Your task to perform on an android device: turn off sleep mode Image 0: 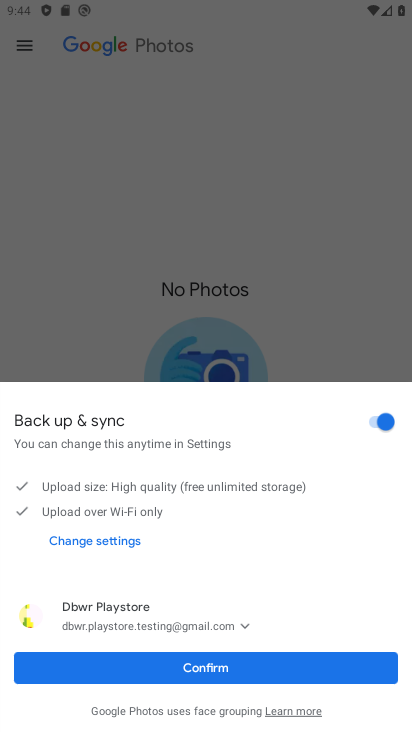
Step 0: press home button
Your task to perform on an android device: turn off sleep mode Image 1: 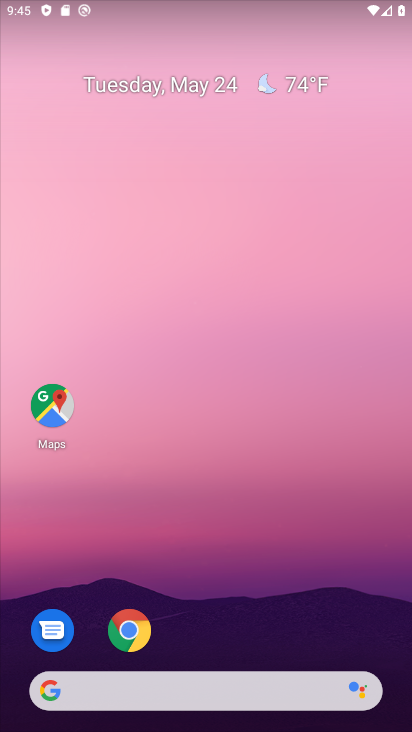
Step 1: drag from (225, 633) to (224, 41)
Your task to perform on an android device: turn off sleep mode Image 2: 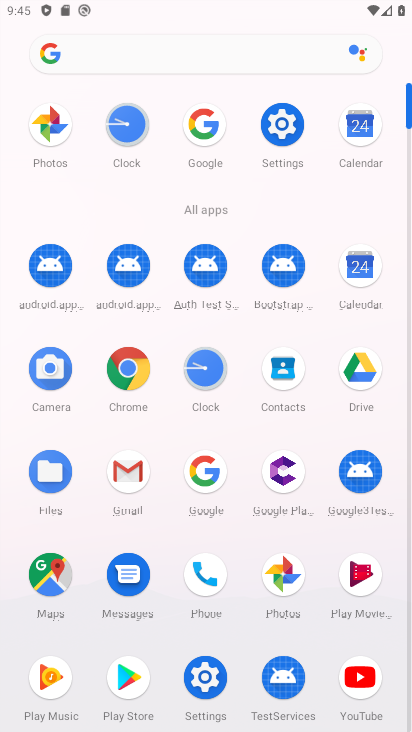
Step 2: click (295, 137)
Your task to perform on an android device: turn off sleep mode Image 3: 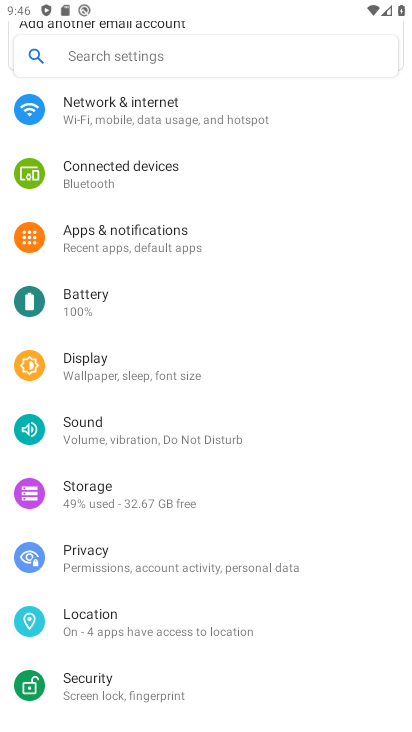
Step 3: task complete